Your task to perform on an android device: turn on showing notifications on the lock screen Image 0: 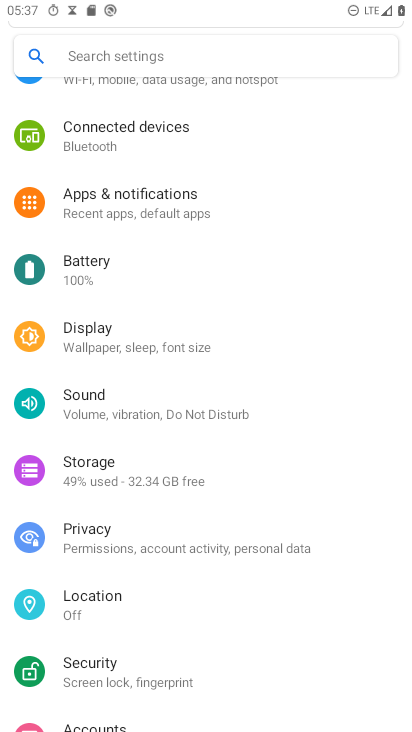
Step 0: click (159, 202)
Your task to perform on an android device: turn on showing notifications on the lock screen Image 1: 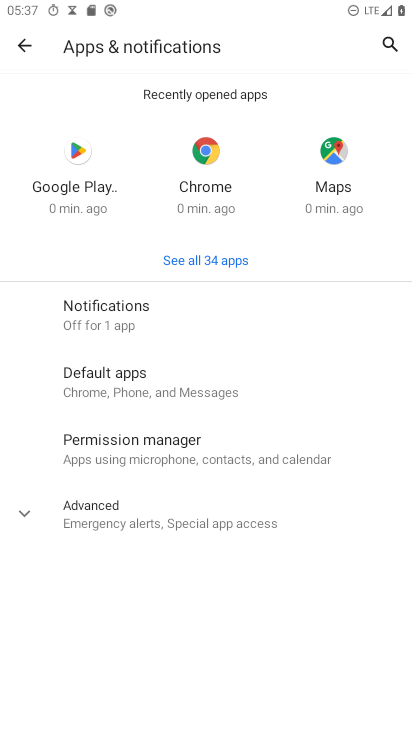
Step 1: click (163, 310)
Your task to perform on an android device: turn on showing notifications on the lock screen Image 2: 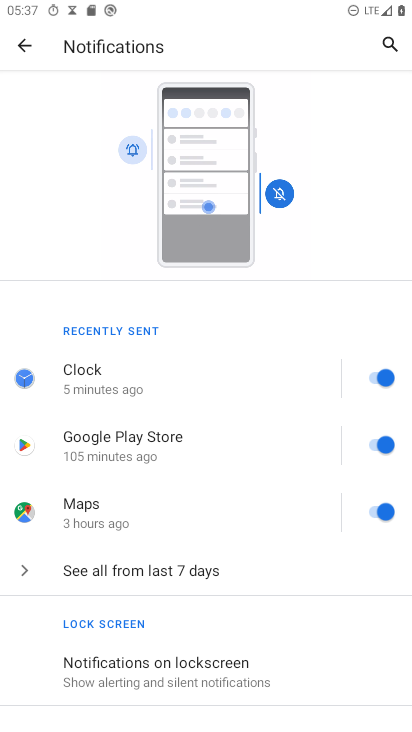
Step 2: drag from (244, 667) to (302, 187)
Your task to perform on an android device: turn on showing notifications on the lock screen Image 3: 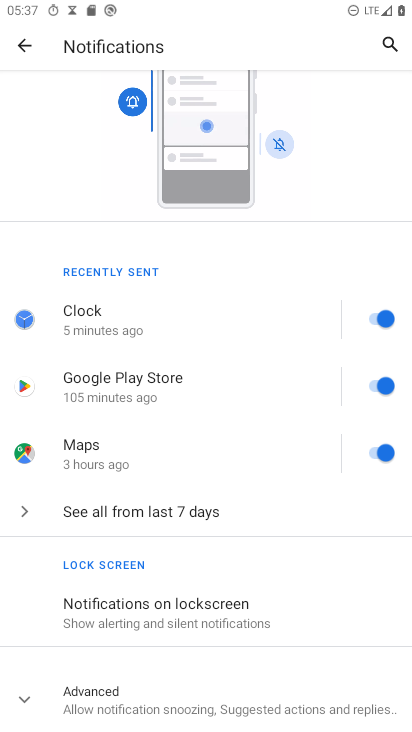
Step 3: click (240, 620)
Your task to perform on an android device: turn on showing notifications on the lock screen Image 4: 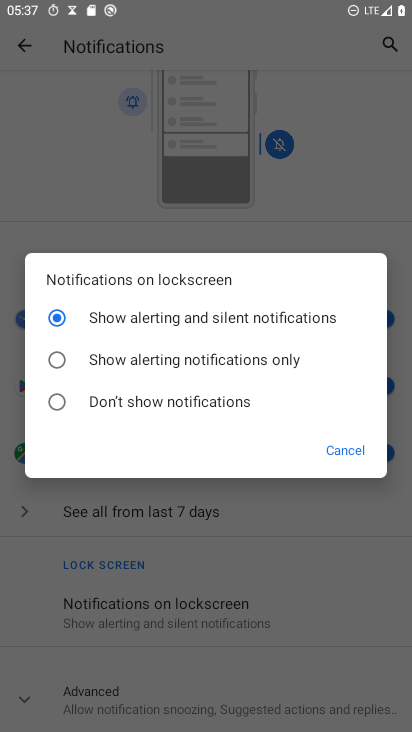
Step 4: task complete